Your task to perform on an android device: turn on airplane mode Image 0: 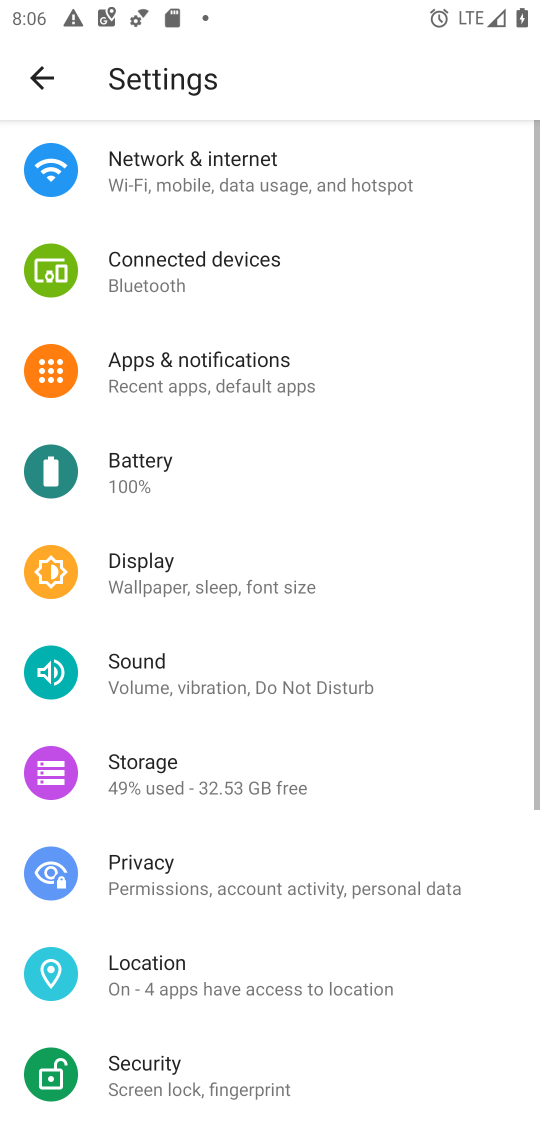
Step 0: press home button
Your task to perform on an android device: turn on airplane mode Image 1: 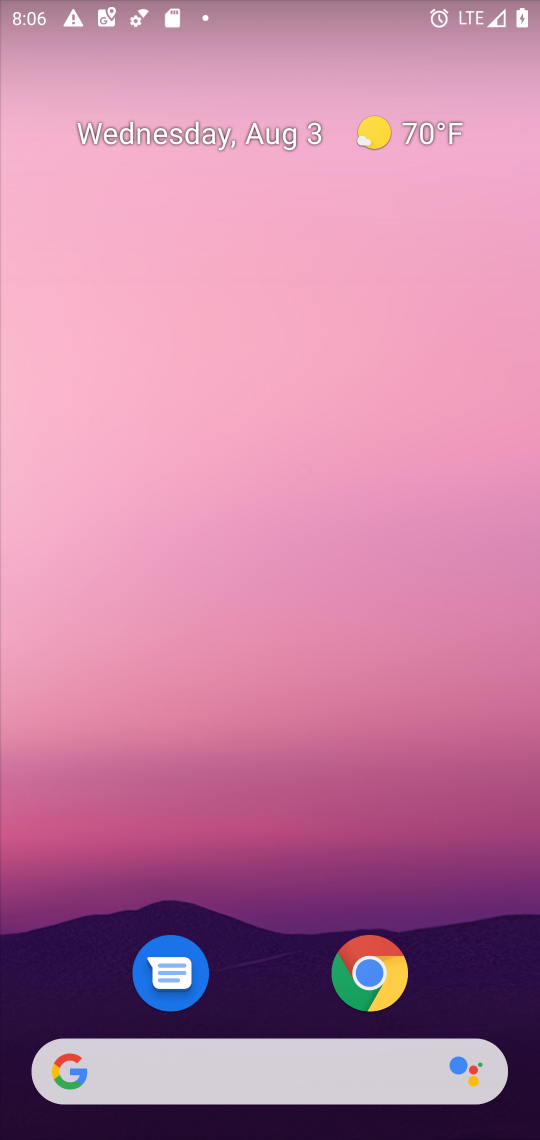
Step 1: drag from (314, 27) to (306, 1082)
Your task to perform on an android device: turn on airplane mode Image 2: 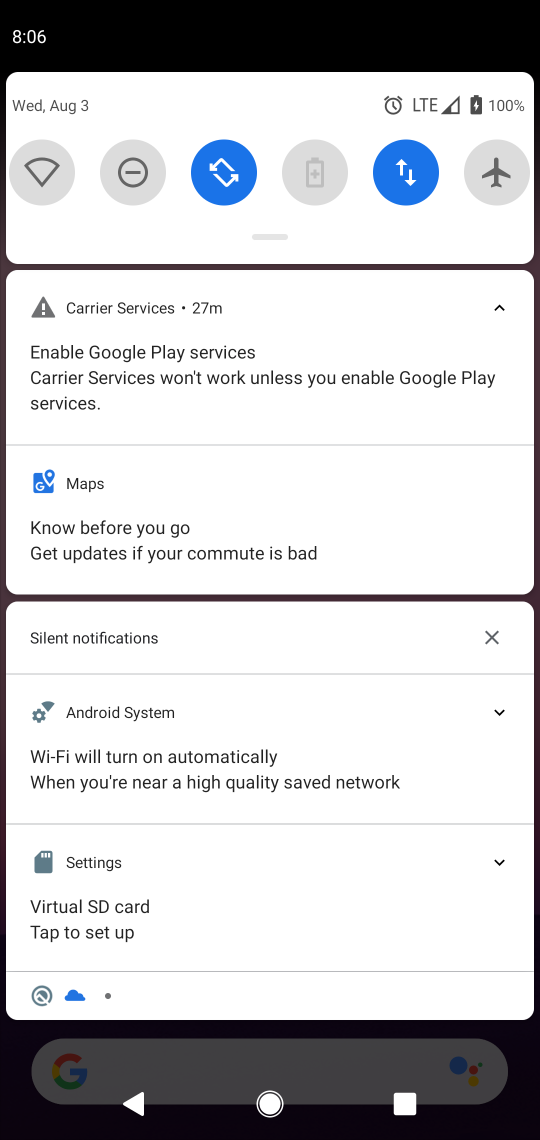
Step 2: click (480, 158)
Your task to perform on an android device: turn on airplane mode Image 3: 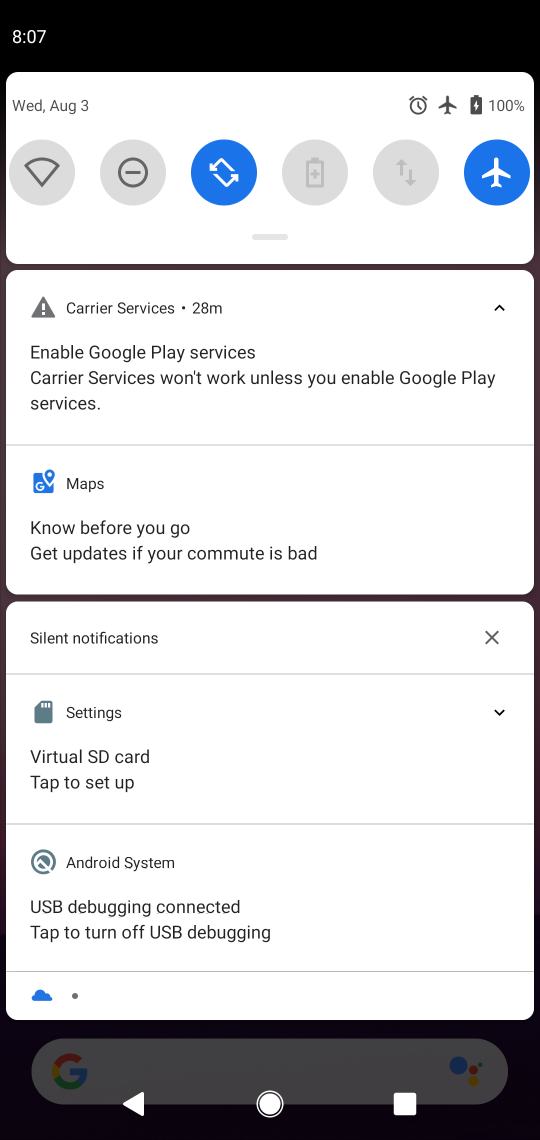
Step 3: task complete